Your task to perform on an android device: Turn on the flashlight Image 0: 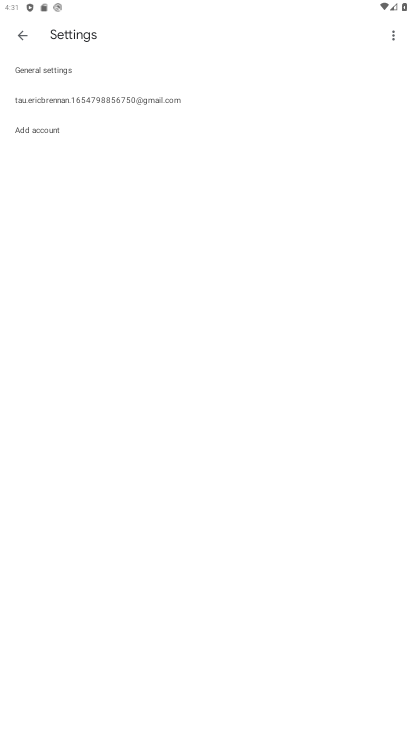
Step 0: press home button
Your task to perform on an android device: Turn on the flashlight Image 1: 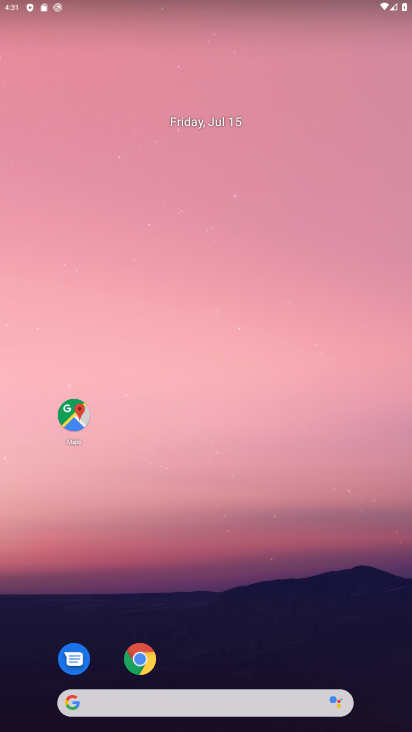
Step 1: drag from (207, 628) to (243, 68)
Your task to perform on an android device: Turn on the flashlight Image 2: 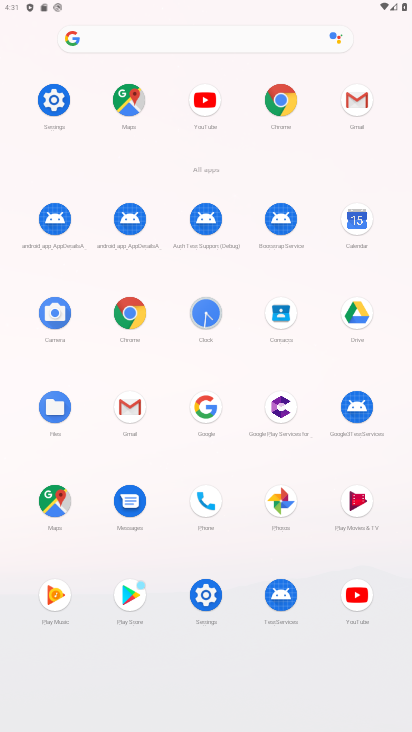
Step 2: click (40, 112)
Your task to perform on an android device: Turn on the flashlight Image 3: 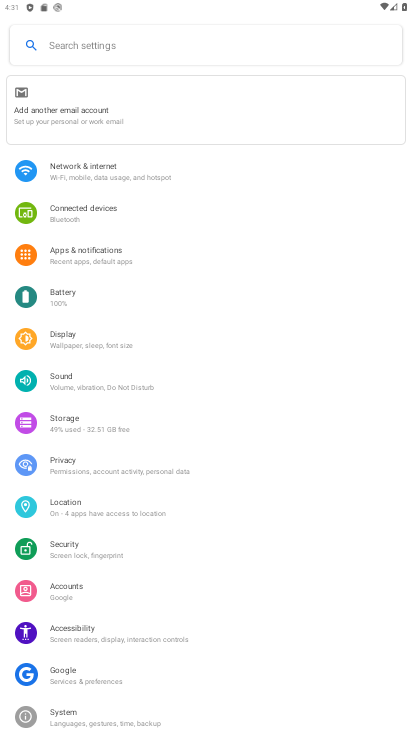
Step 3: task complete